Your task to perform on an android device: install app "Instagram" Image 0: 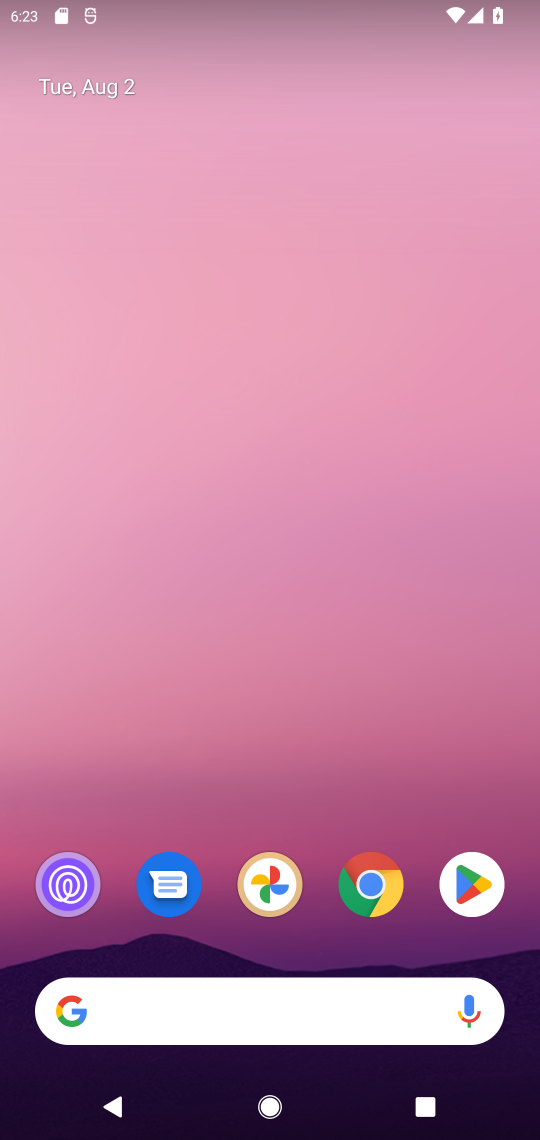
Step 0: press home button
Your task to perform on an android device: install app "Instagram" Image 1: 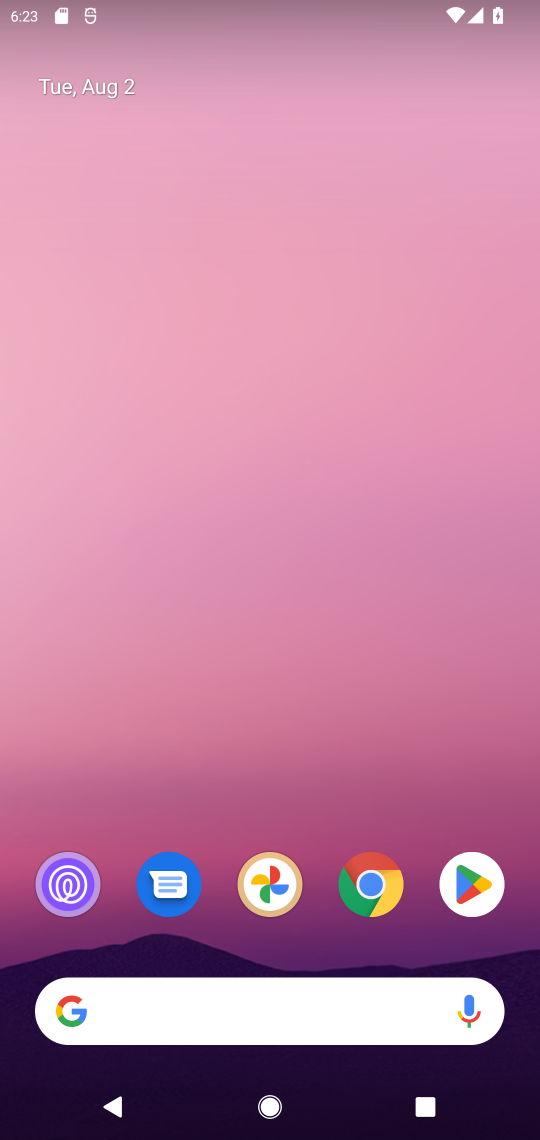
Step 1: click (467, 871)
Your task to perform on an android device: install app "Instagram" Image 2: 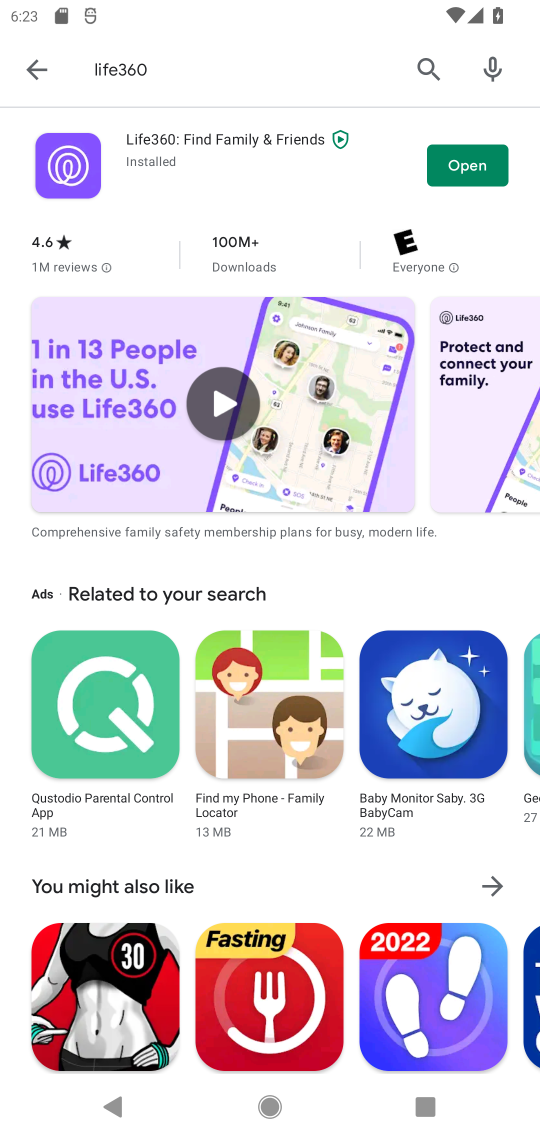
Step 2: click (430, 56)
Your task to perform on an android device: install app "Instagram" Image 3: 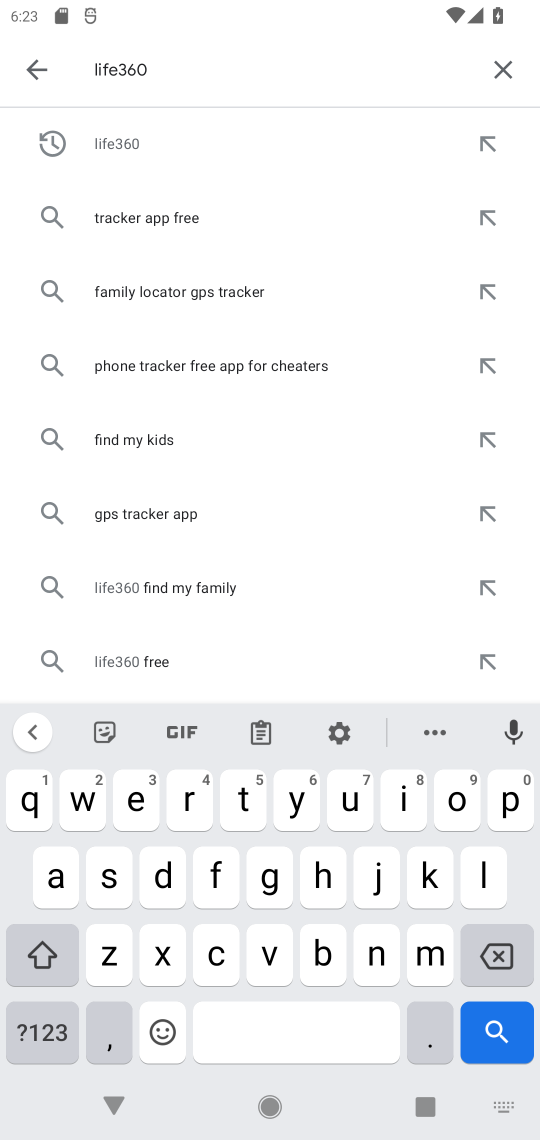
Step 3: click (499, 70)
Your task to perform on an android device: install app "Instagram" Image 4: 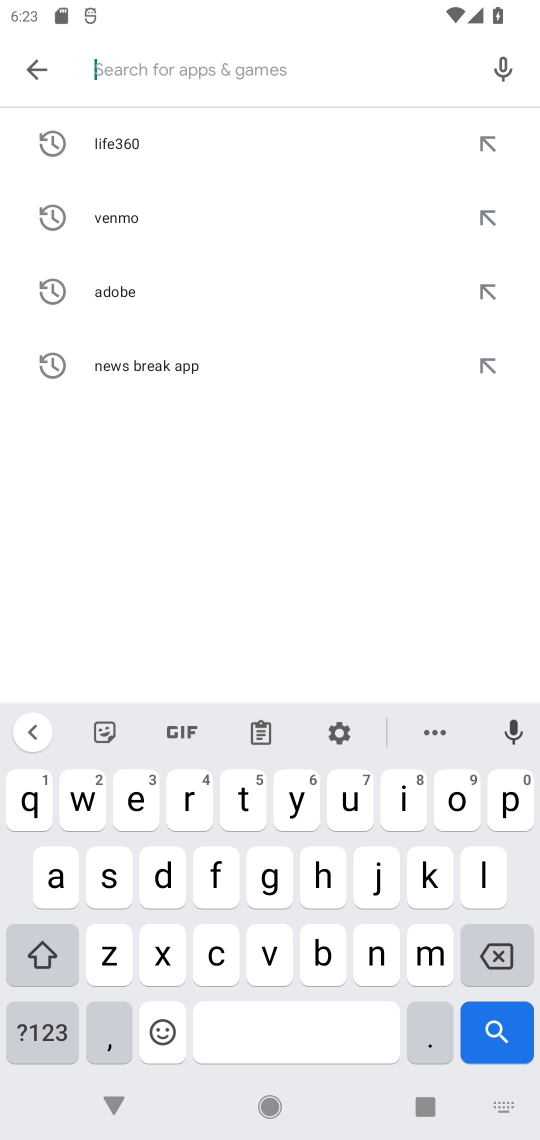
Step 4: click (401, 803)
Your task to perform on an android device: install app "Instagram" Image 5: 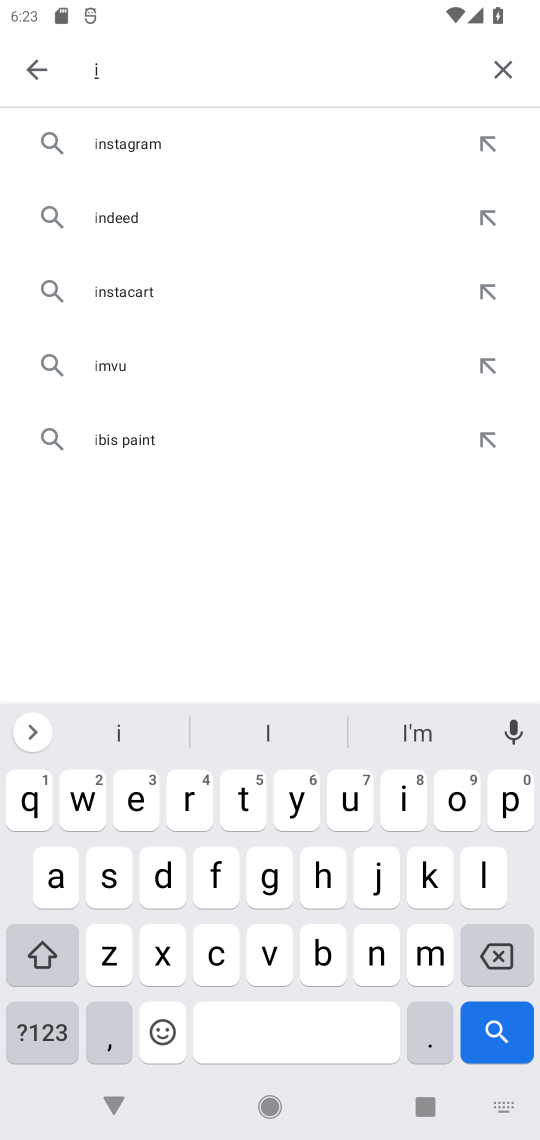
Step 5: click (372, 961)
Your task to perform on an android device: install app "Instagram" Image 6: 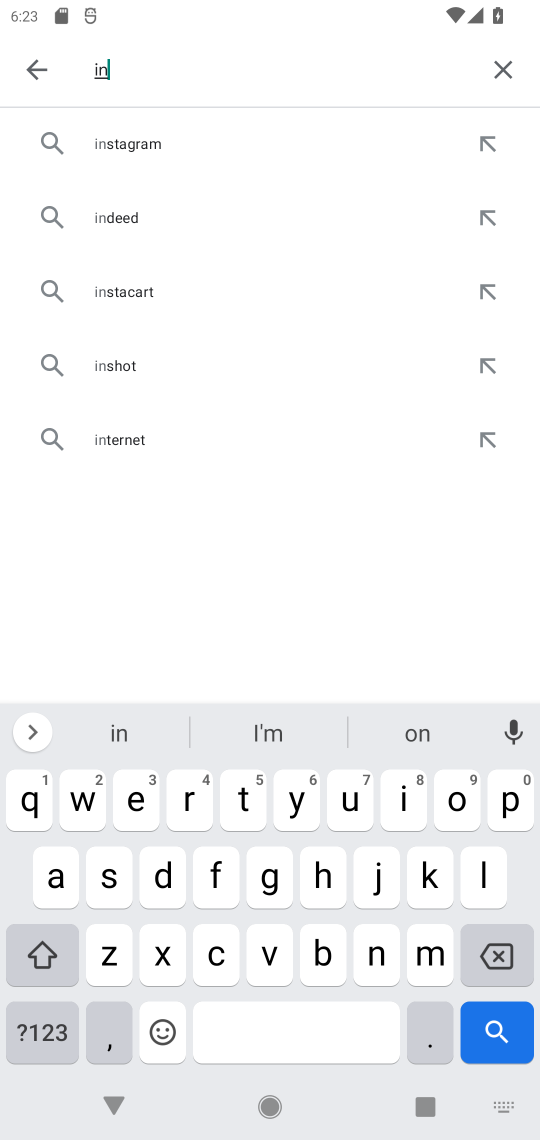
Step 6: click (160, 149)
Your task to perform on an android device: install app "Instagram" Image 7: 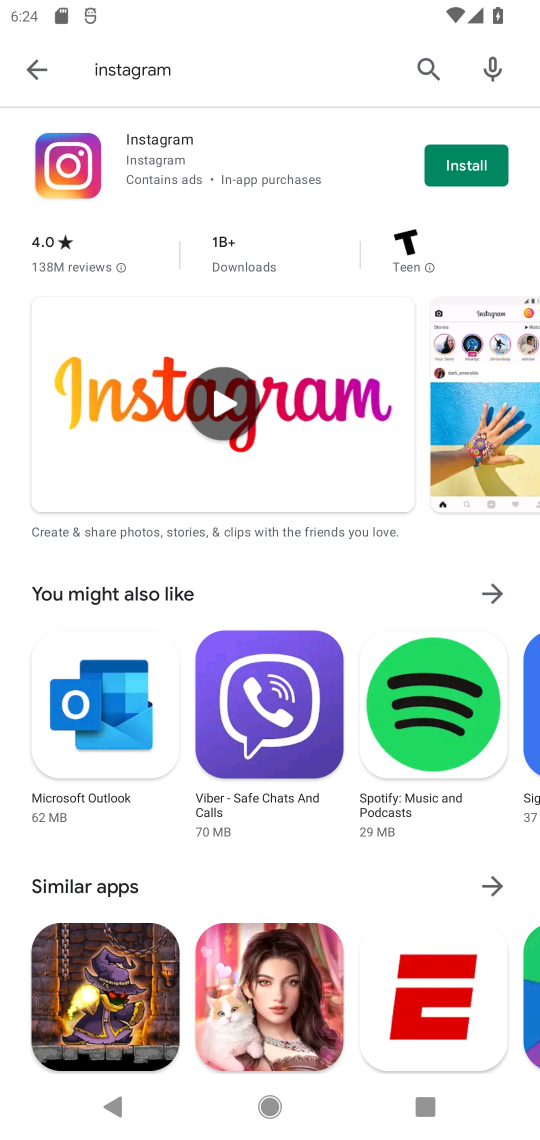
Step 7: click (462, 176)
Your task to perform on an android device: install app "Instagram" Image 8: 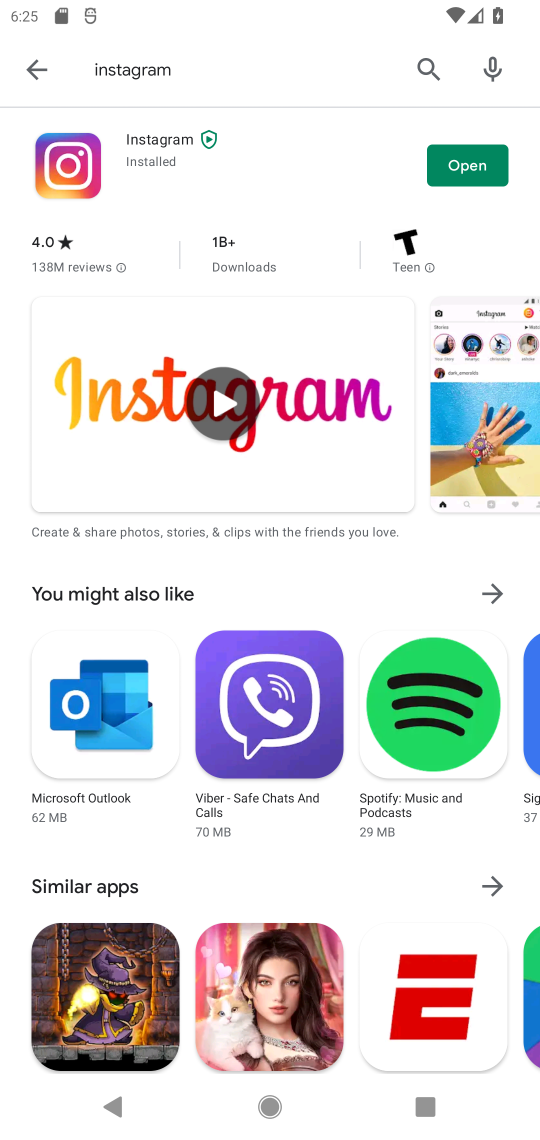
Step 8: task complete